Your task to perform on an android device: toggle airplane mode Image 0: 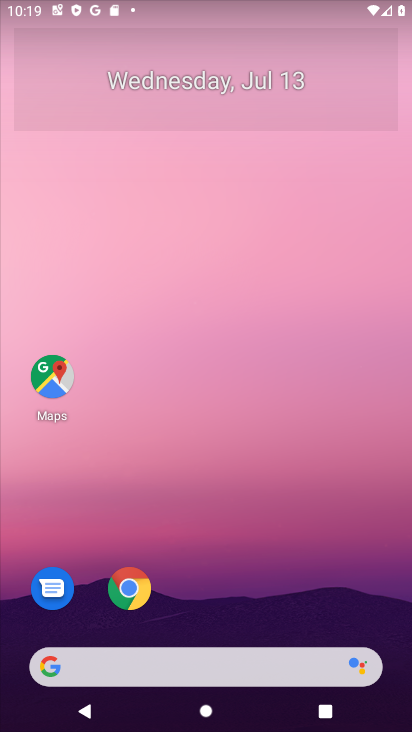
Step 0: drag from (230, 618) to (196, 74)
Your task to perform on an android device: toggle airplane mode Image 1: 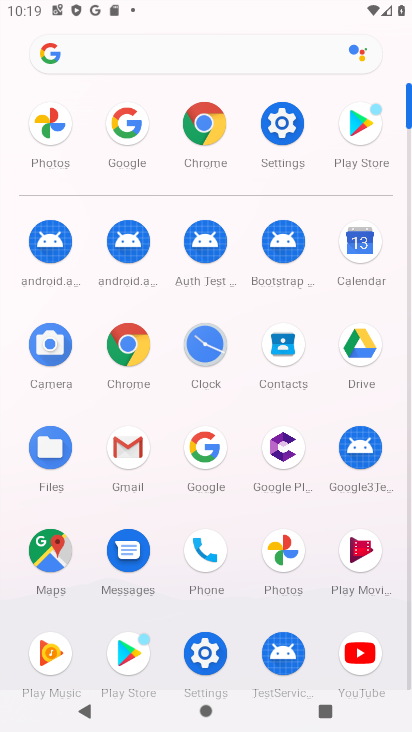
Step 1: click (281, 121)
Your task to perform on an android device: toggle airplane mode Image 2: 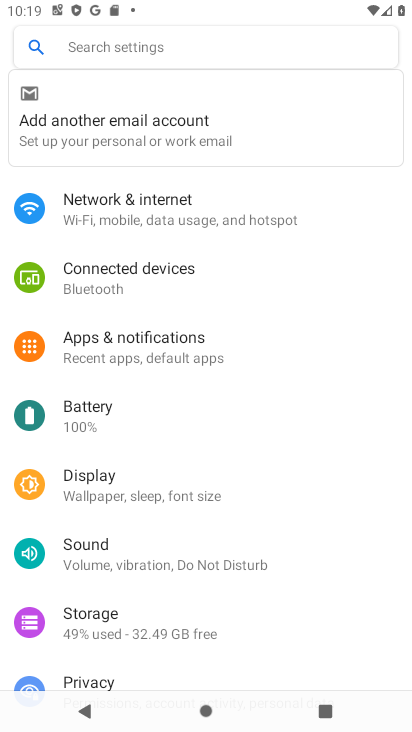
Step 2: click (176, 203)
Your task to perform on an android device: toggle airplane mode Image 3: 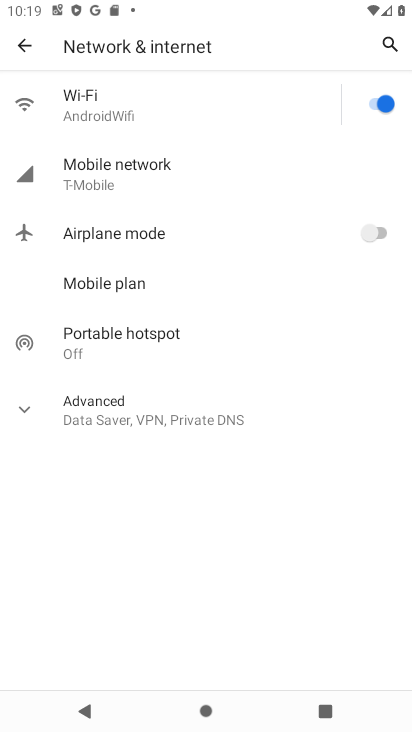
Step 3: click (369, 233)
Your task to perform on an android device: toggle airplane mode Image 4: 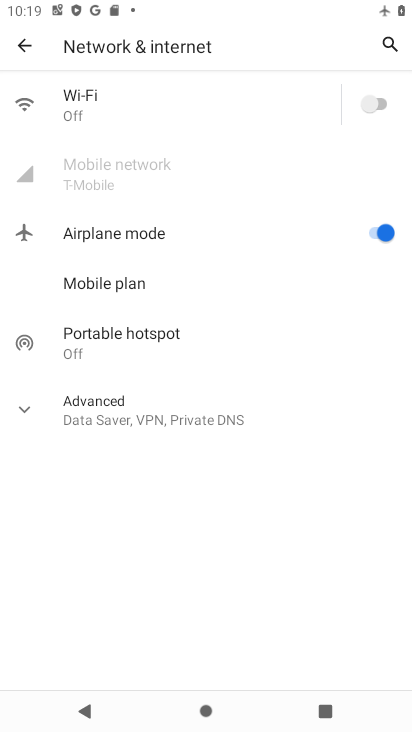
Step 4: task complete